Your task to perform on an android device: Go to Amazon Image 0: 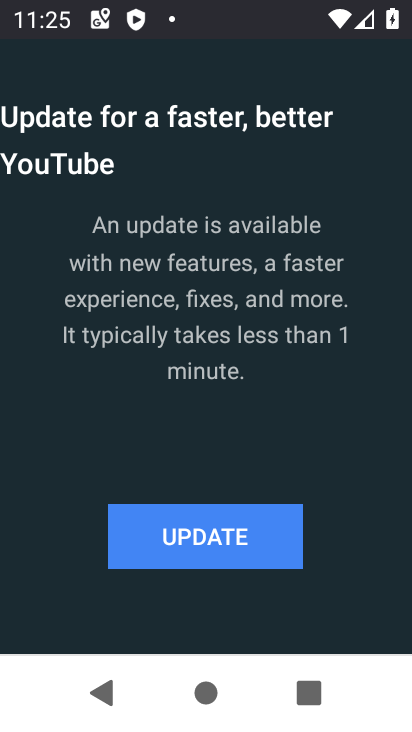
Step 0: press home button
Your task to perform on an android device: Go to Amazon Image 1: 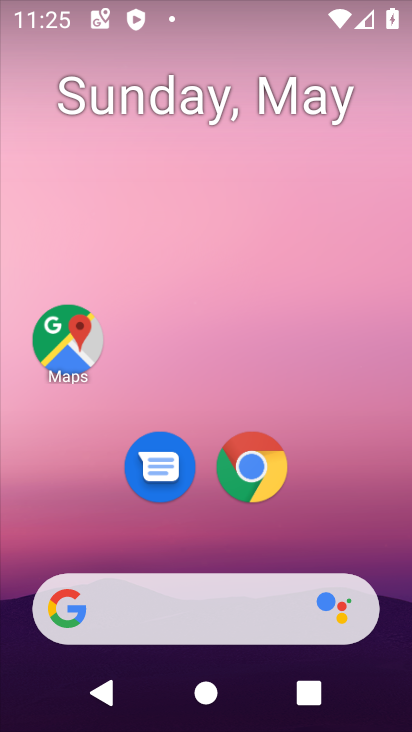
Step 1: click (256, 470)
Your task to perform on an android device: Go to Amazon Image 2: 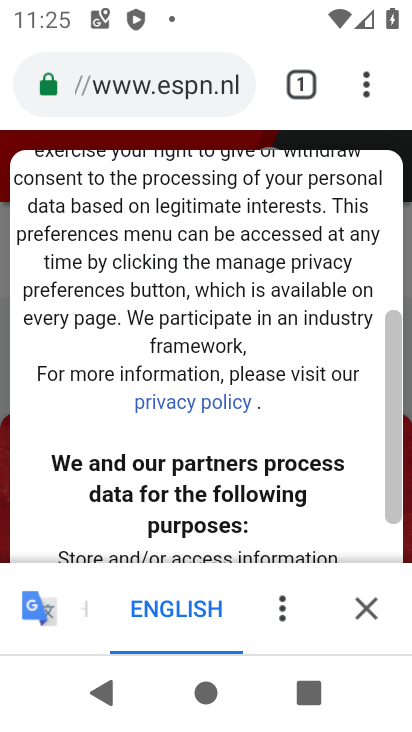
Step 2: click (144, 87)
Your task to perform on an android device: Go to Amazon Image 3: 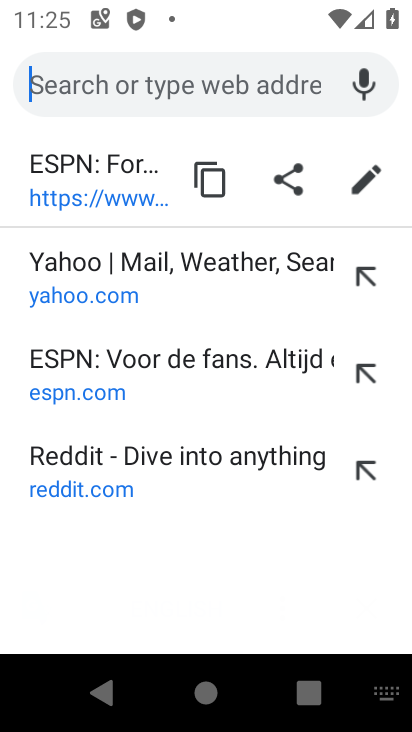
Step 3: type "amazon"
Your task to perform on an android device: Go to Amazon Image 4: 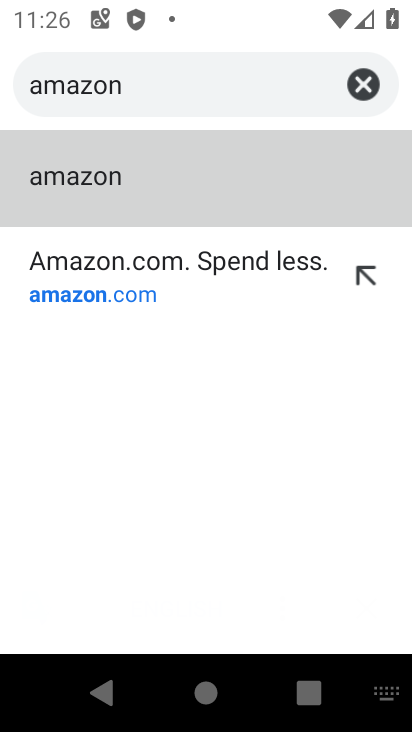
Step 4: click (63, 185)
Your task to perform on an android device: Go to Amazon Image 5: 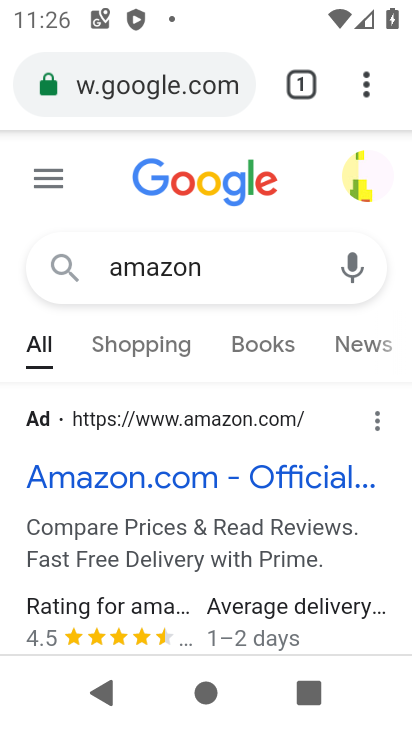
Step 5: click (72, 483)
Your task to perform on an android device: Go to Amazon Image 6: 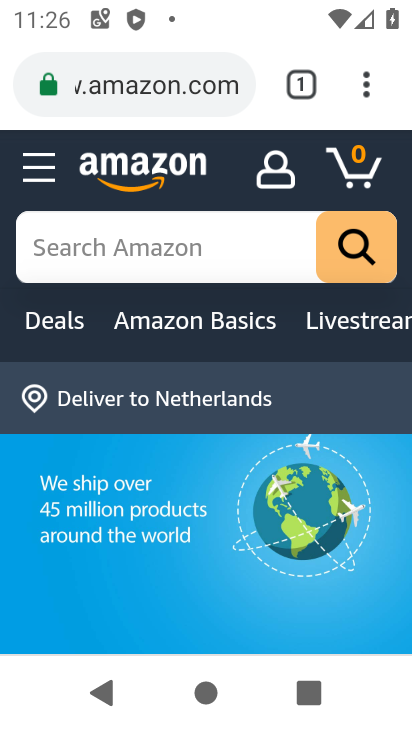
Step 6: task complete